Your task to perform on an android device: What's the weather? Image 0: 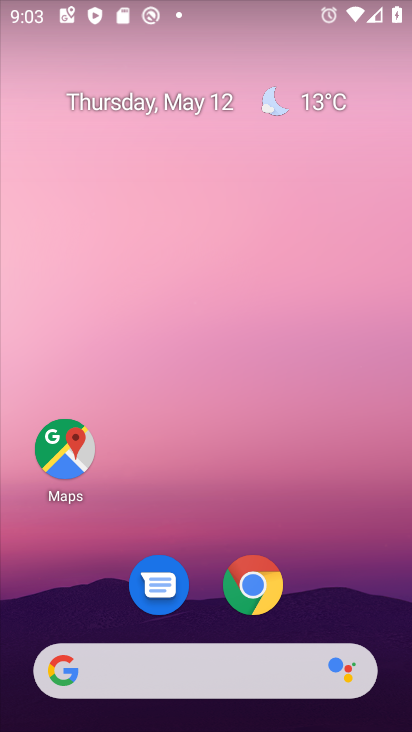
Step 0: click (310, 102)
Your task to perform on an android device: What's the weather? Image 1: 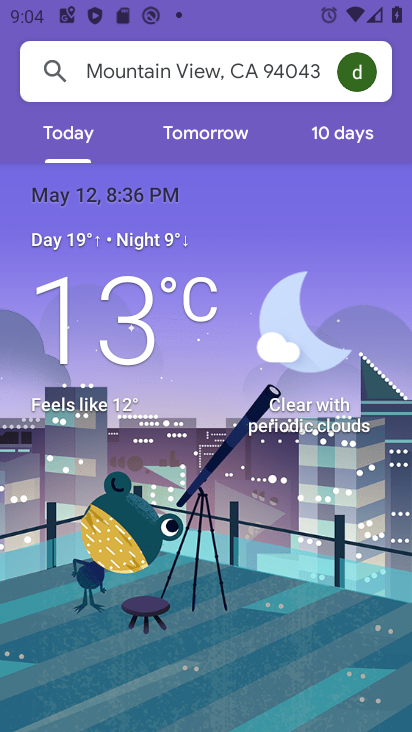
Step 1: task complete